Your task to perform on an android device: turn notification dots off Image 0: 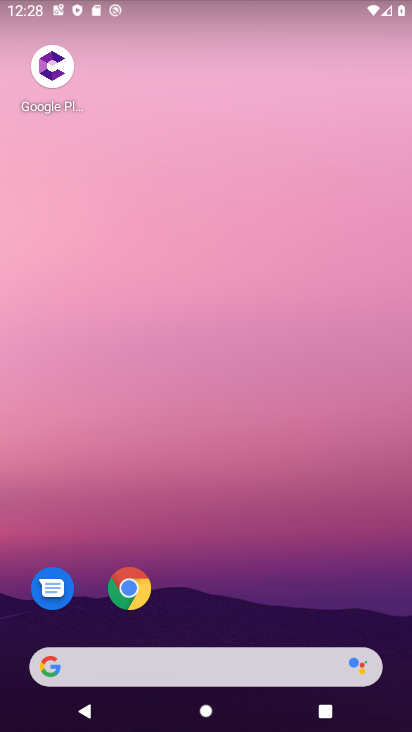
Step 0: drag from (133, 710) to (222, 37)
Your task to perform on an android device: turn notification dots off Image 1: 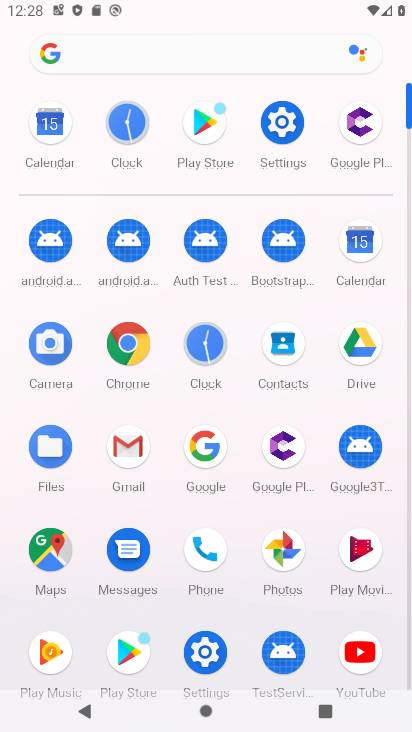
Step 1: click (288, 132)
Your task to perform on an android device: turn notification dots off Image 2: 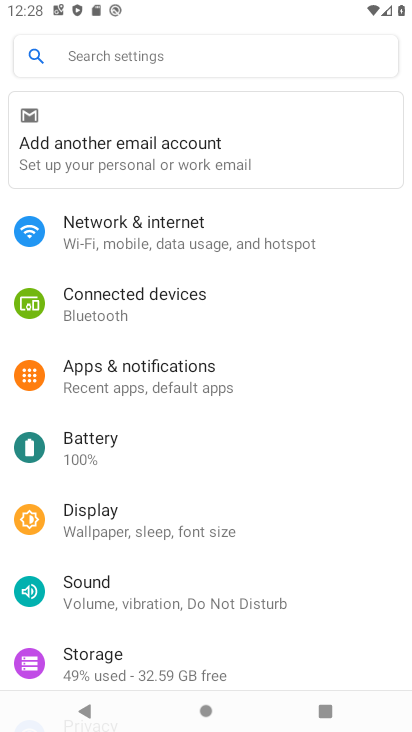
Step 2: click (170, 374)
Your task to perform on an android device: turn notification dots off Image 3: 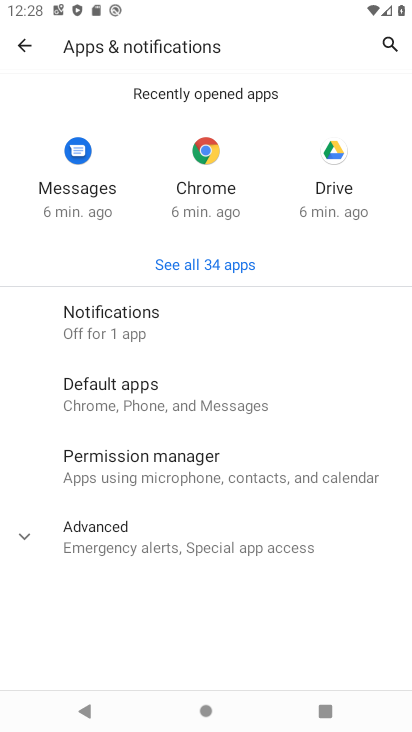
Step 3: click (179, 323)
Your task to perform on an android device: turn notification dots off Image 4: 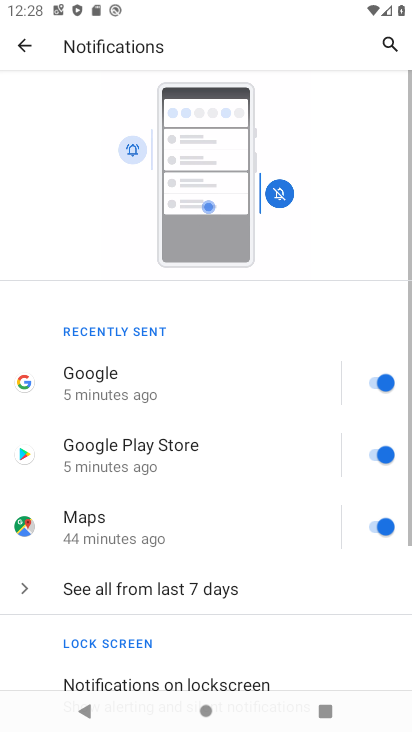
Step 4: drag from (288, 576) to (225, 48)
Your task to perform on an android device: turn notification dots off Image 5: 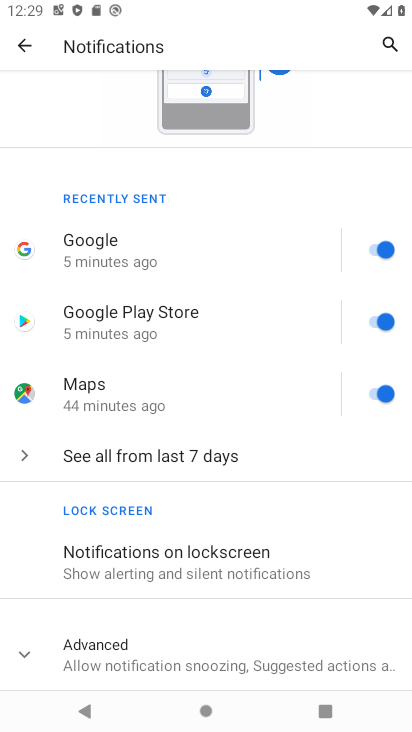
Step 5: drag from (366, 540) to (321, 215)
Your task to perform on an android device: turn notification dots off Image 6: 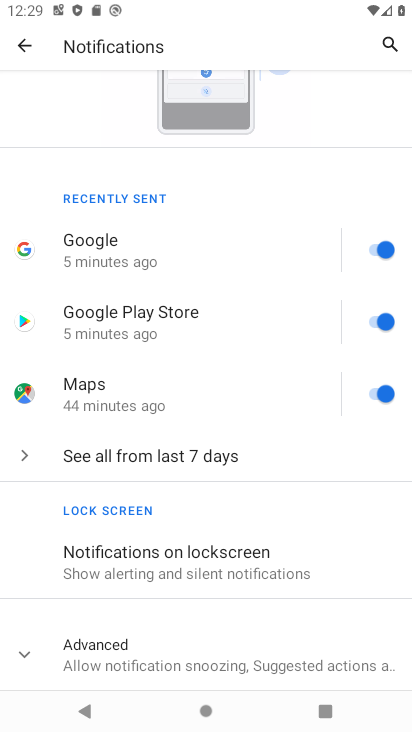
Step 6: click (196, 657)
Your task to perform on an android device: turn notification dots off Image 7: 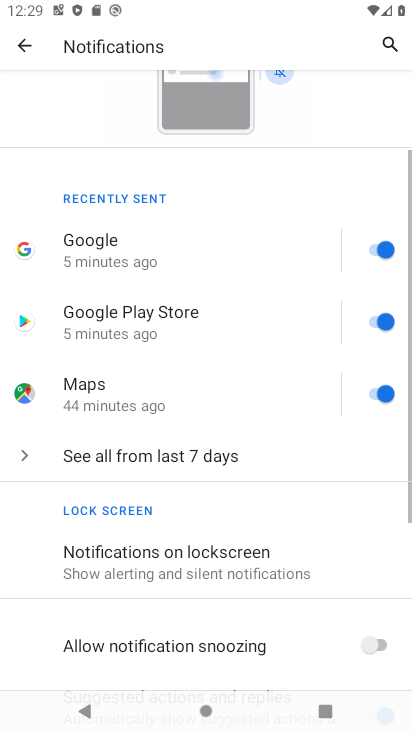
Step 7: drag from (291, 595) to (280, 27)
Your task to perform on an android device: turn notification dots off Image 8: 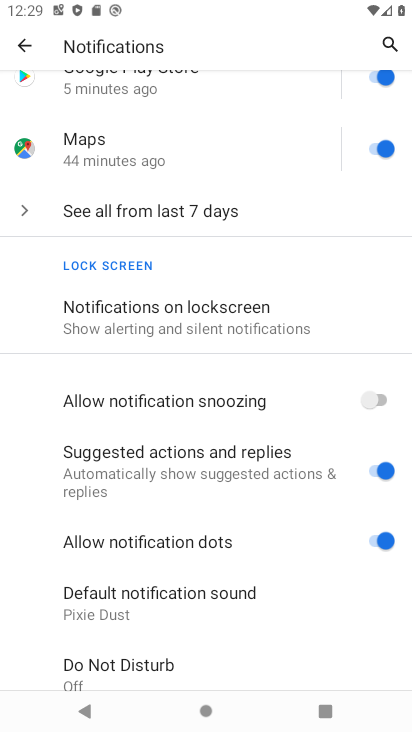
Step 8: click (384, 545)
Your task to perform on an android device: turn notification dots off Image 9: 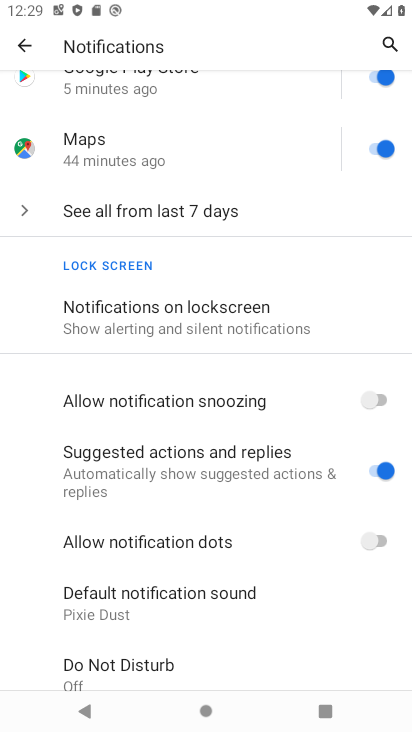
Step 9: task complete